Your task to perform on an android device: turn on showing notifications on the lock screen Image 0: 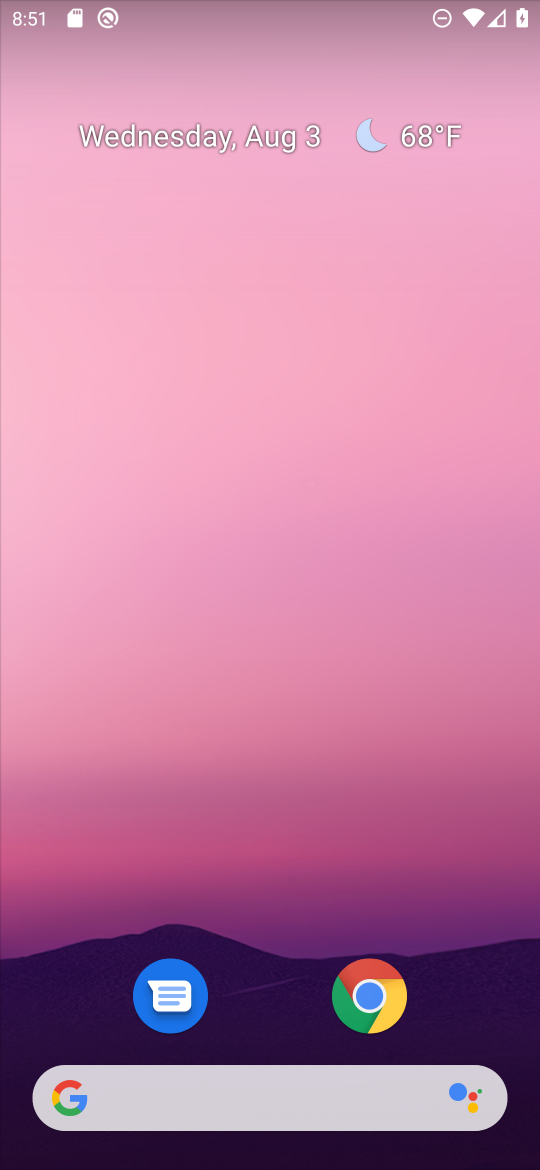
Step 0: drag from (279, 922) to (265, 0)
Your task to perform on an android device: turn on showing notifications on the lock screen Image 1: 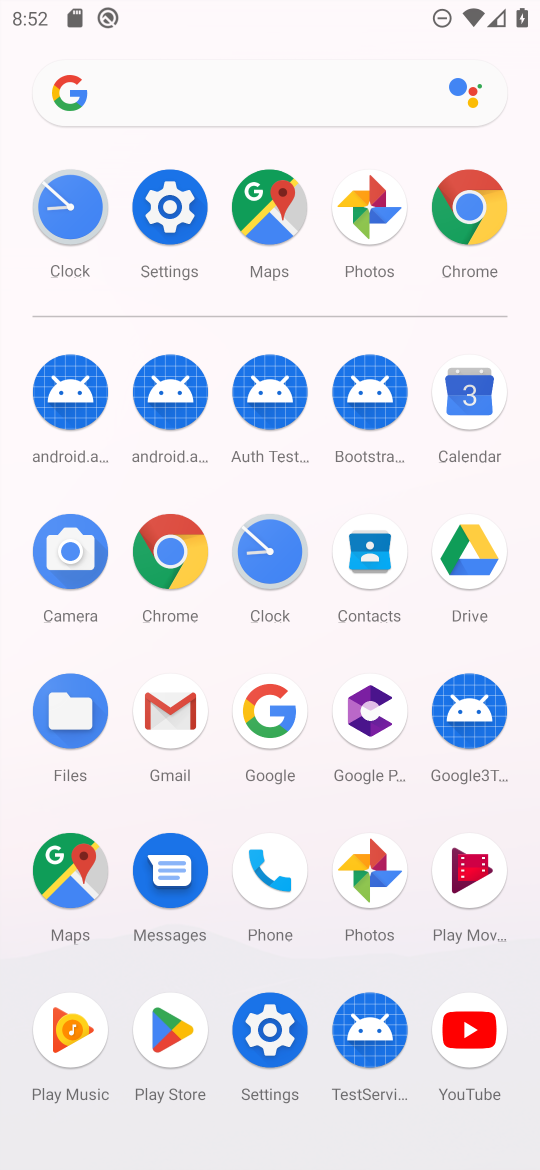
Step 1: click (165, 212)
Your task to perform on an android device: turn on showing notifications on the lock screen Image 2: 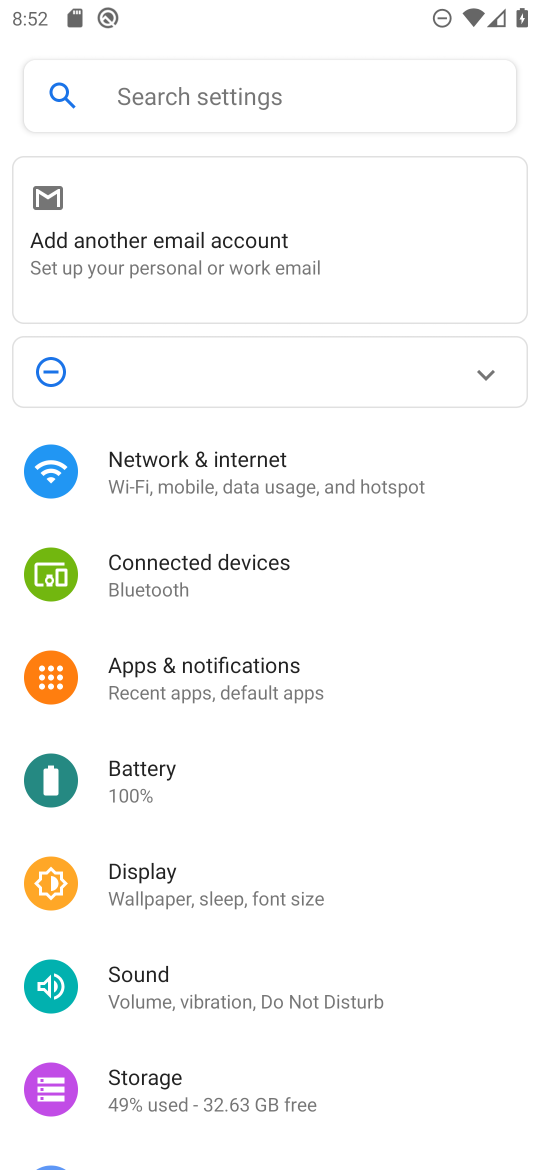
Step 2: click (206, 662)
Your task to perform on an android device: turn on showing notifications on the lock screen Image 3: 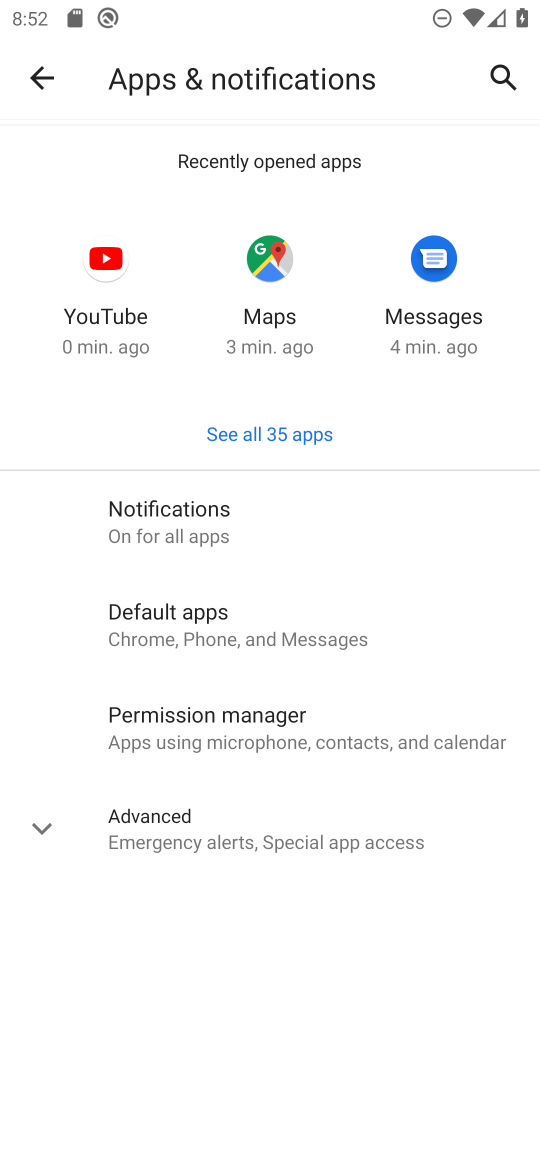
Step 3: click (200, 510)
Your task to perform on an android device: turn on showing notifications on the lock screen Image 4: 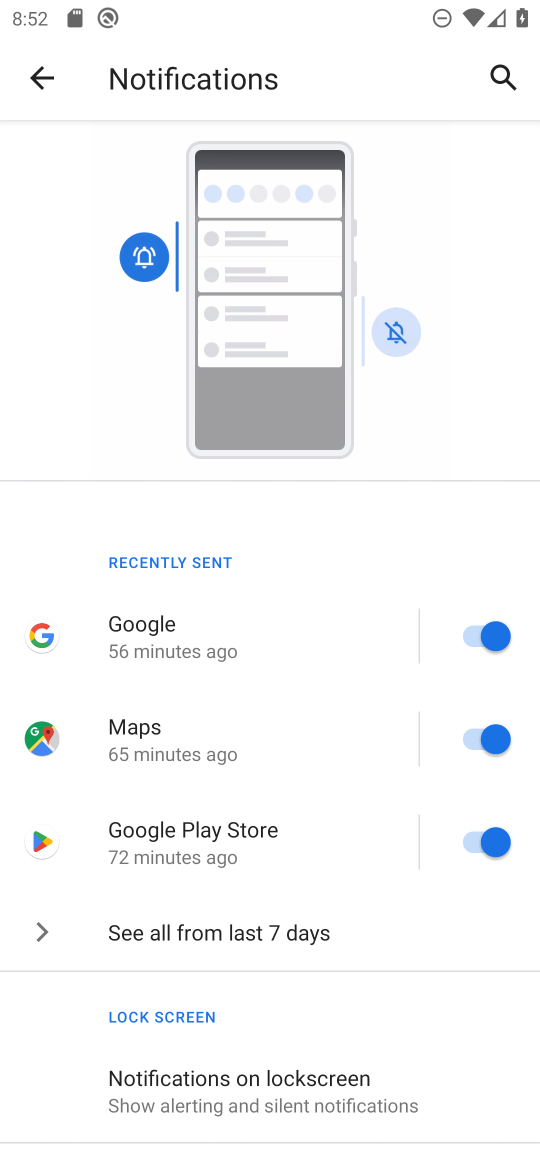
Step 4: drag from (308, 704) to (338, 256)
Your task to perform on an android device: turn on showing notifications on the lock screen Image 5: 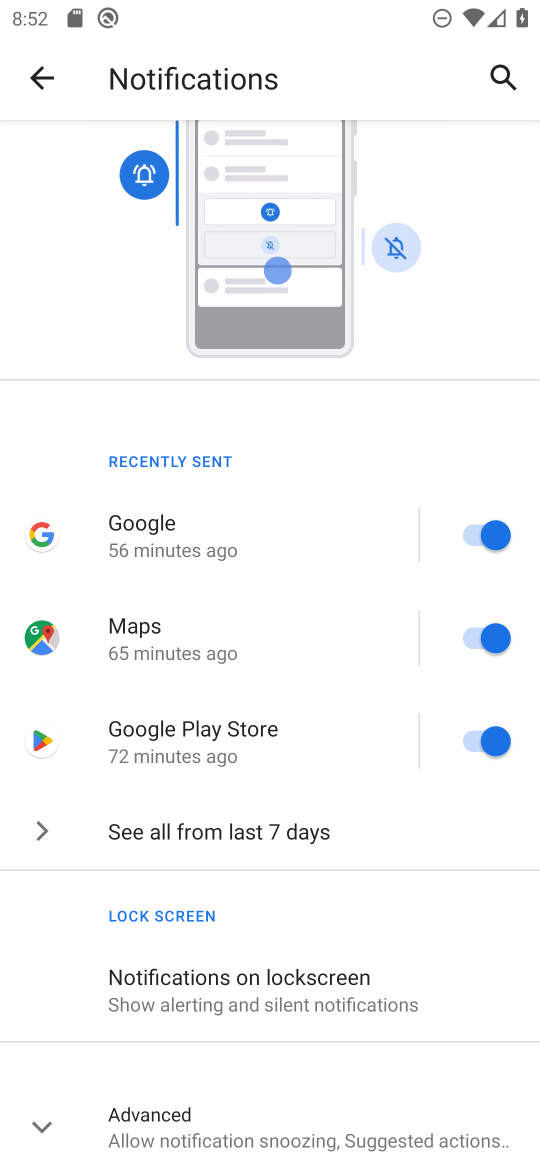
Step 5: click (323, 993)
Your task to perform on an android device: turn on showing notifications on the lock screen Image 6: 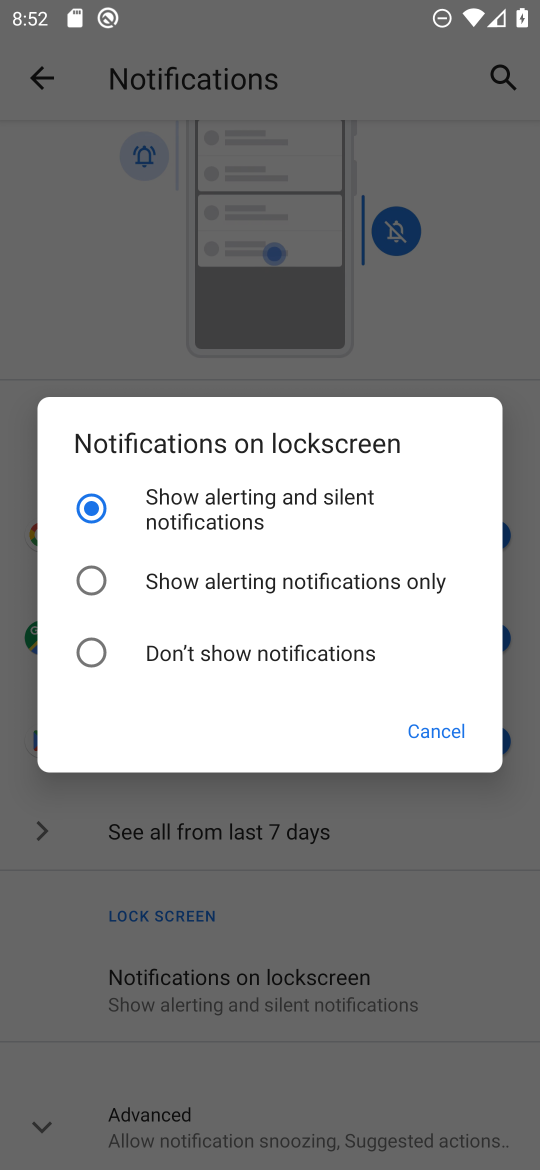
Step 6: click (252, 502)
Your task to perform on an android device: turn on showing notifications on the lock screen Image 7: 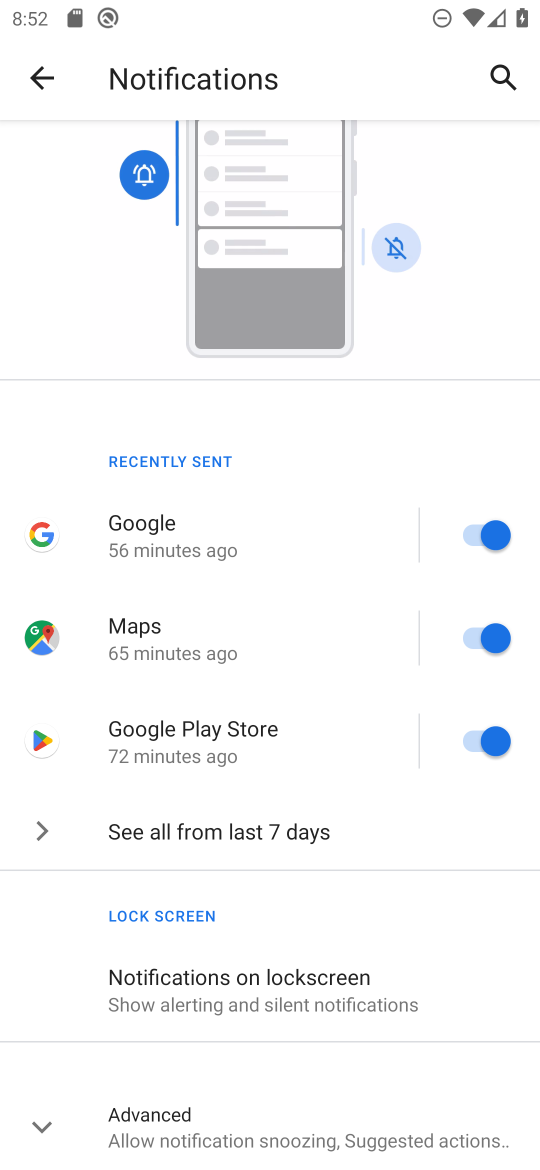
Step 7: task complete